Your task to perform on an android device: Open the web browser Image 0: 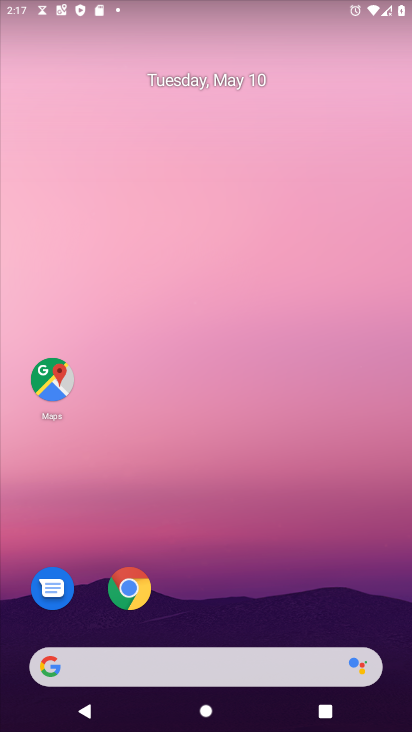
Step 0: drag from (227, 611) to (208, 212)
Your task to perform on an android device: Open the web browser Image 1: 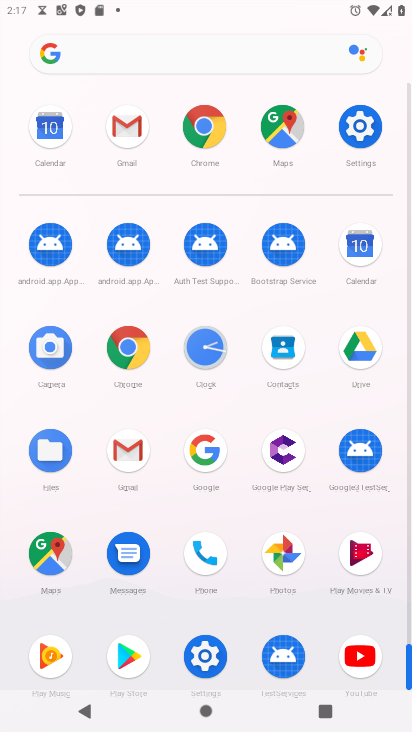
Step 1: click (129, 335)
Your task to perform on an android device: Open the web browser Image 2: 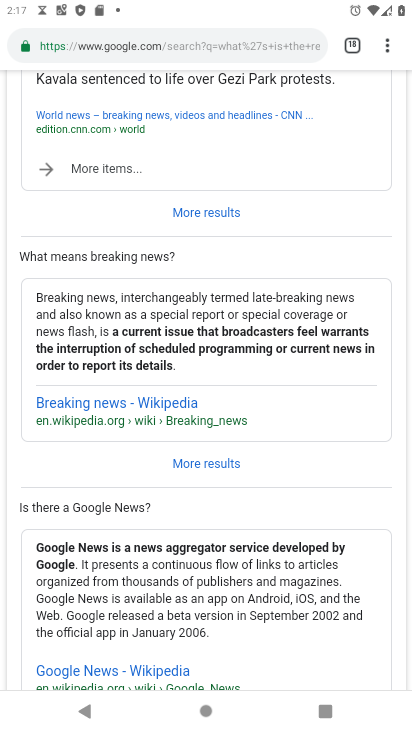
Step 2: task complete